Your task to perform on an android device: Open the phone app and click the voicemail tab. Image 0: 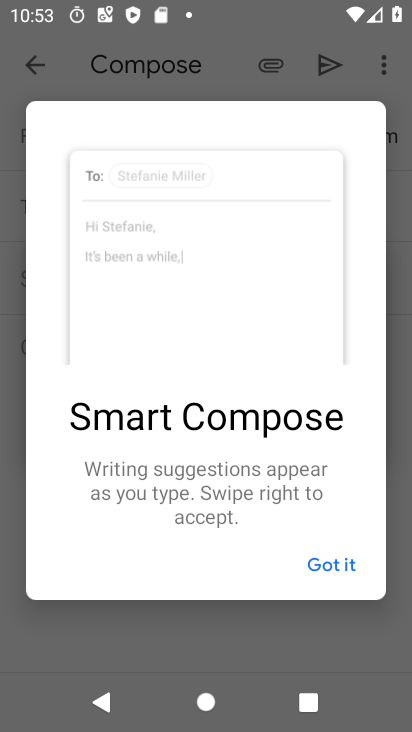
Step 0: press home button
Your task to perform on an android device: Open the phone app and click the voicemail tab. Image 1: 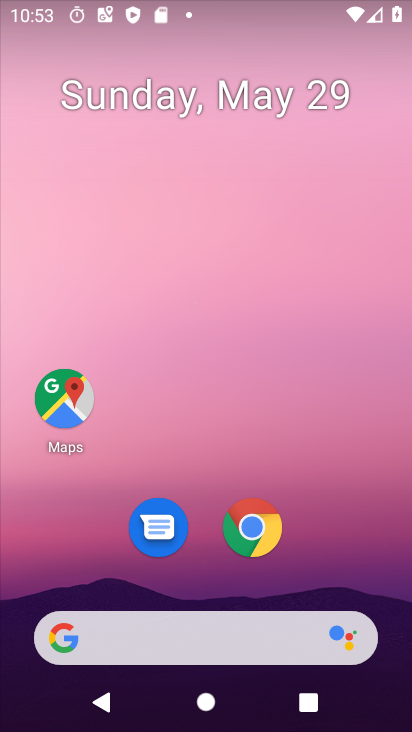
Step 1: drag from (373, 553) to (294, 135)
Your task to perform on an android device: Open the phone app and click the voicemail tab. Image 2: 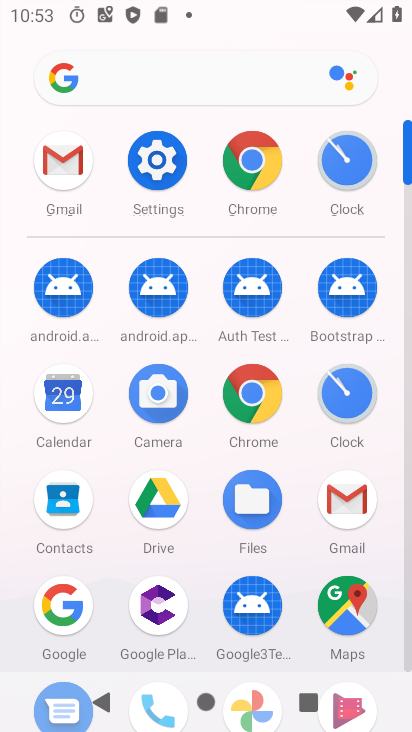
Step 2: drag from (207, 599) to (214, 257)
Your task to perform on an android device: Open the phone app and click the voicemail tab. Image 3: 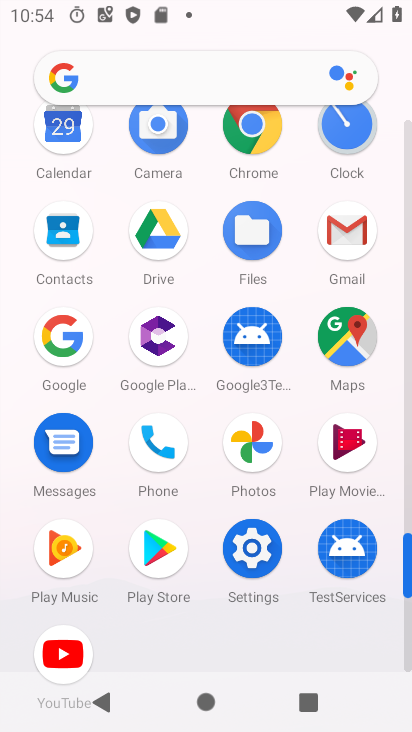
Step 3: click (162, 453)
Your task to perform on an android device: Open the phone app and click the voicemail tab. Image 4: 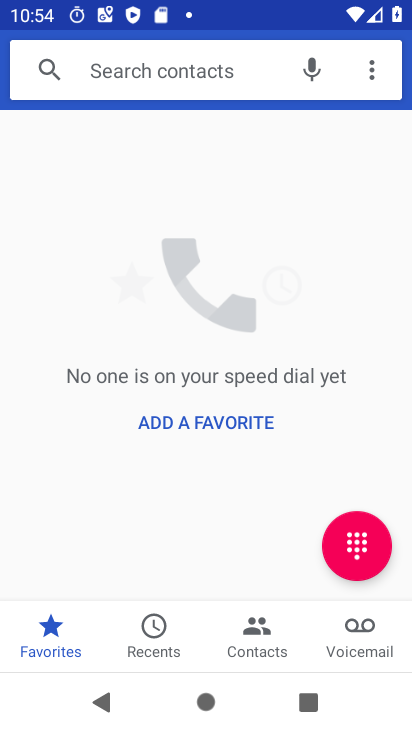
Step 4: click (354, 622)
Your task to perform on an android device: Open the phone app and click the voicemail tab. Image 5: 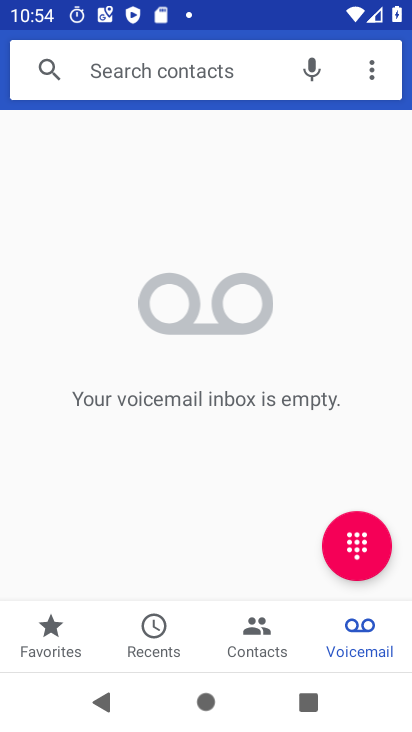
Step 5: task complete